Your task to perform on an android device: When is my next meeting? Image 0: 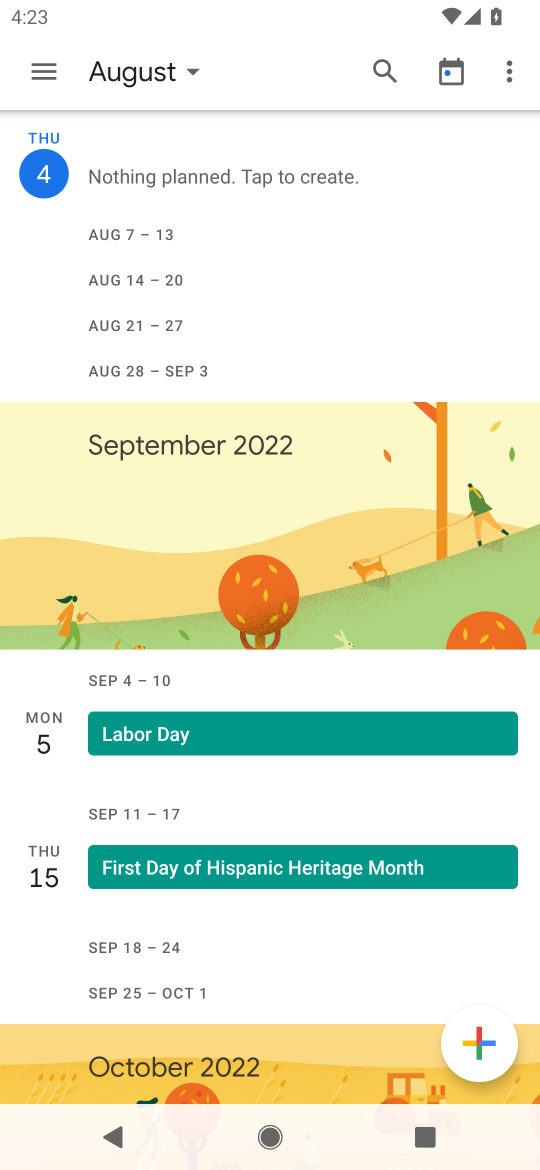
Step 0: press home button
Your task to perform on an android device: When is my next meeting? Image 1: 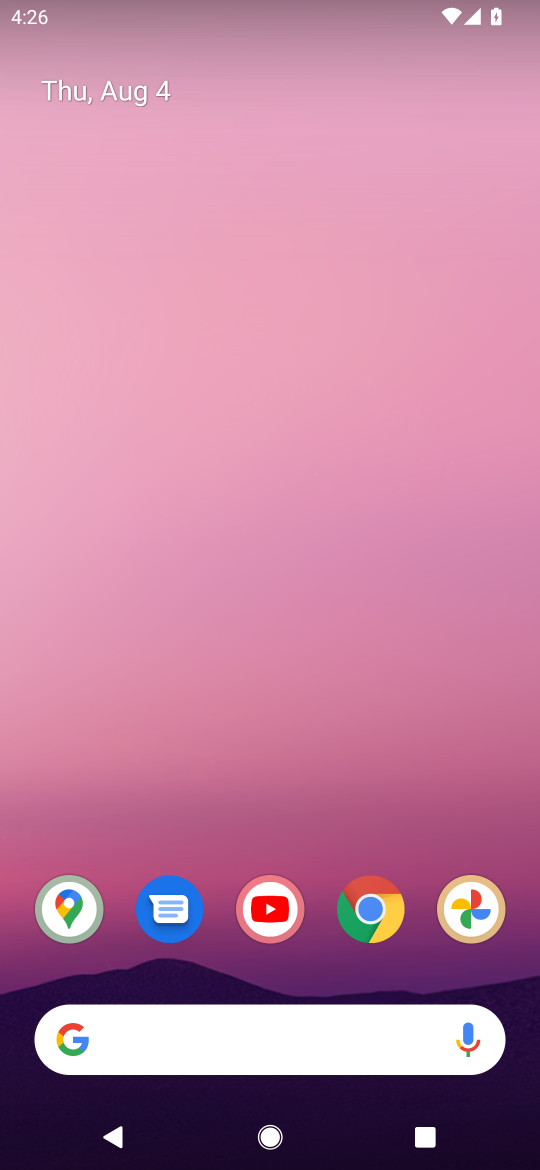
Step 1: click (59, 1038)
Your task to perform on an android device: When is my next meeting? Image 2: 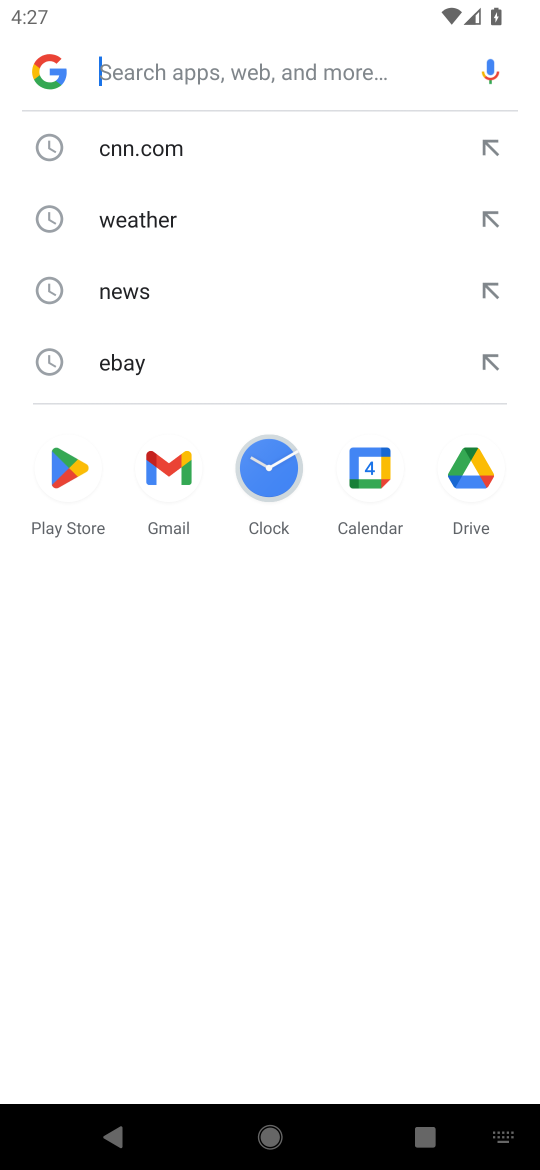
Step 2: drag from (318, 978) to (276, 367)
Your task to perform on an android device: When is my next meeting? Image 3: 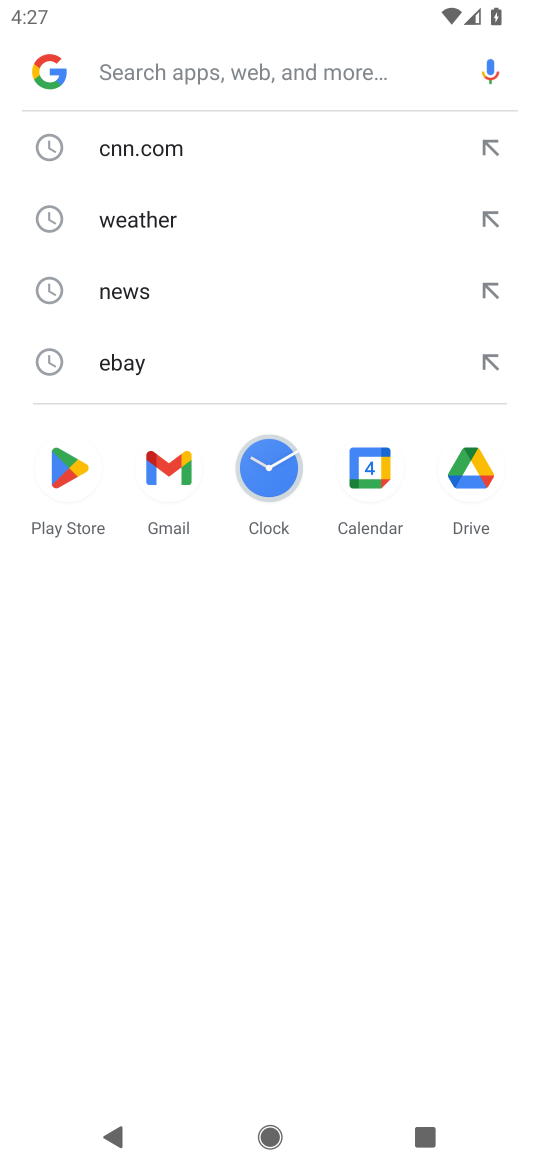
Step 3: press home button
Your task to perform on an android device: When is my next meeting? Image 4: 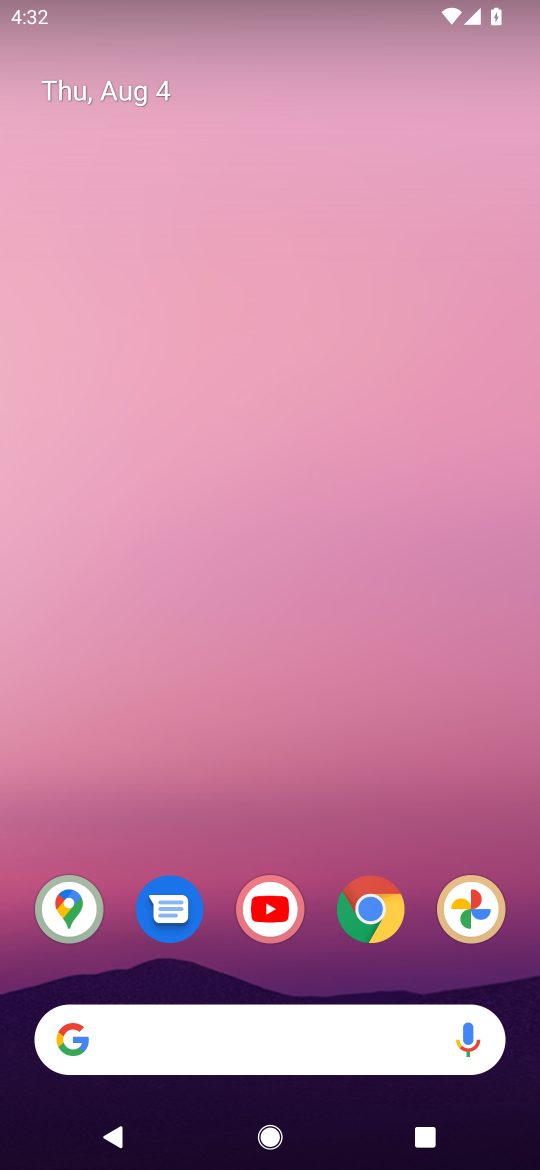
Step 4: drag from (405, 780) to (340, 253)
Your task to perform on an android device: When is my next meeting? Image 5: 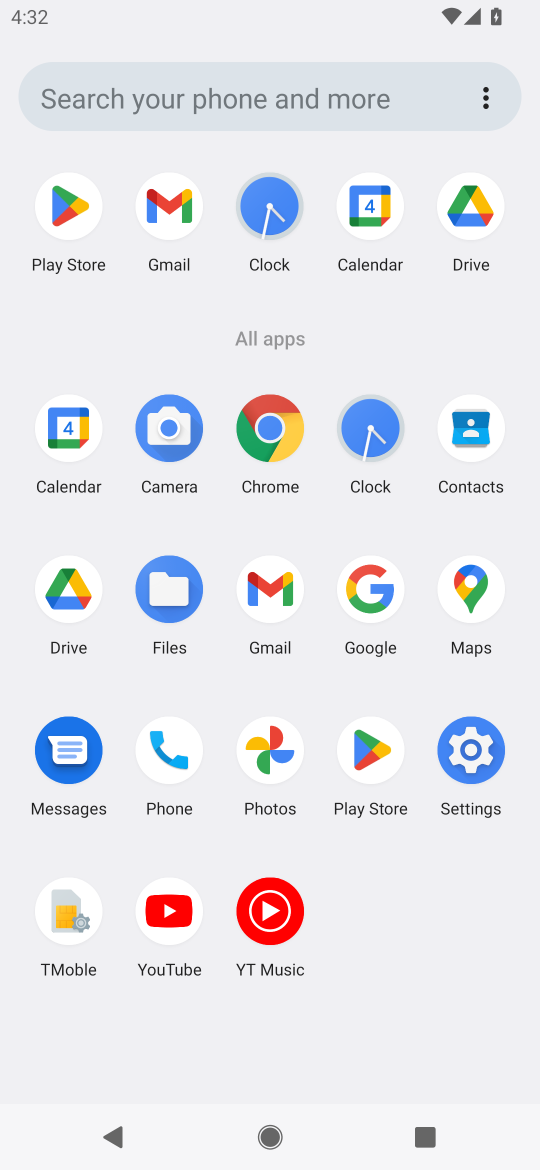
Step 5: click (63, 432)
Your task to perform on an android device: When is my next meeting? Image 6: 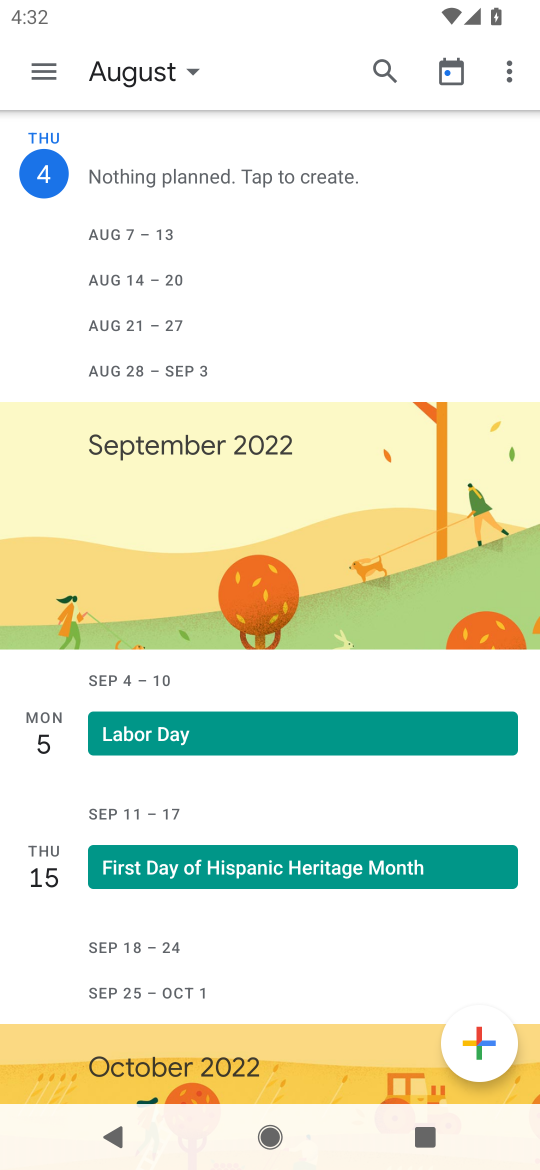
Step 6: click (44, 77)
Your task to perform on an android device: When is my next meeting? Image 7: 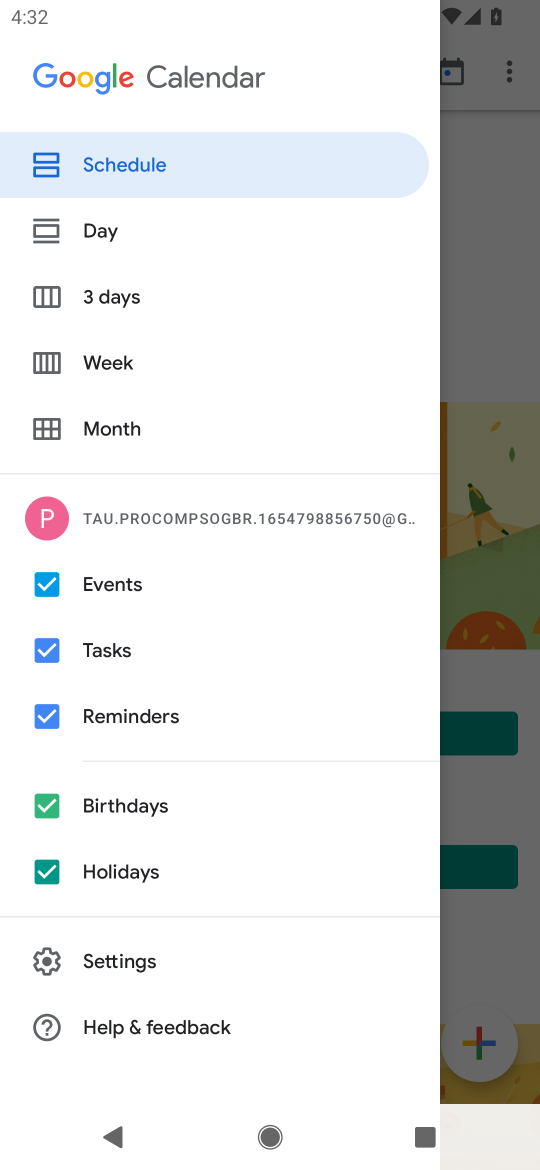
Step 7: click (128, 158)
Your task to perform on an android device: When is my next meeting? Image 8: 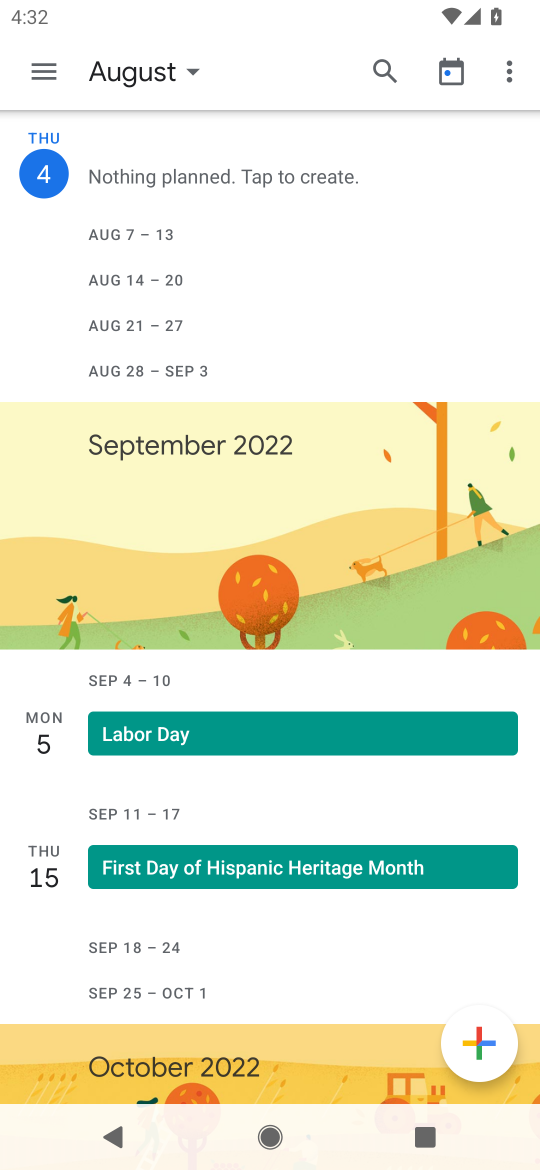
Step 8: task complete